Your task to perform on an android device: all mails in gmail Image 0: 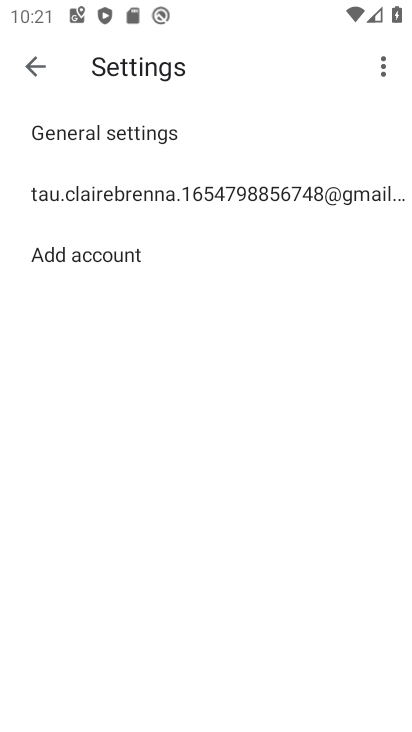
Step 0: click (39, 68)
Your task to perform on an android device: all mails in gmail Image 1: 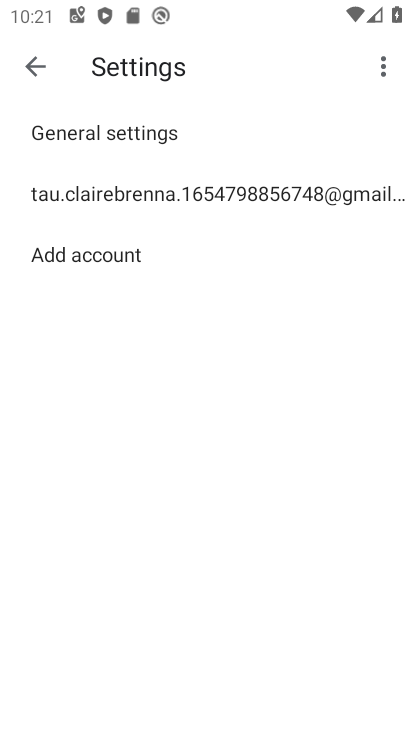
Step 1: click (31, 63)
Your task to perform on an android device: all mails in gmail Image 2: 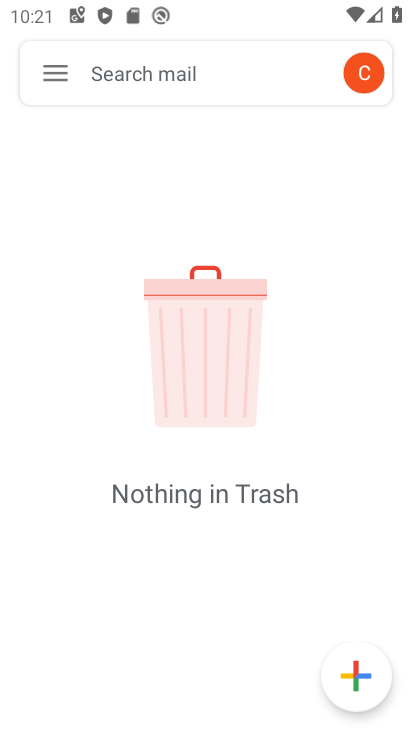
Step 2: click (57, 75)
Your task to perform on an android device: all mails in gmail Image 3: 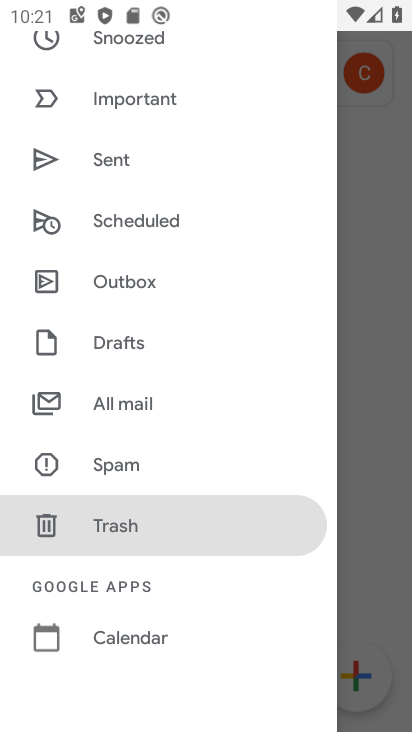
Step 3: click (131, 399)
Your task to perform on an android device: all mails in gmail Image 4: 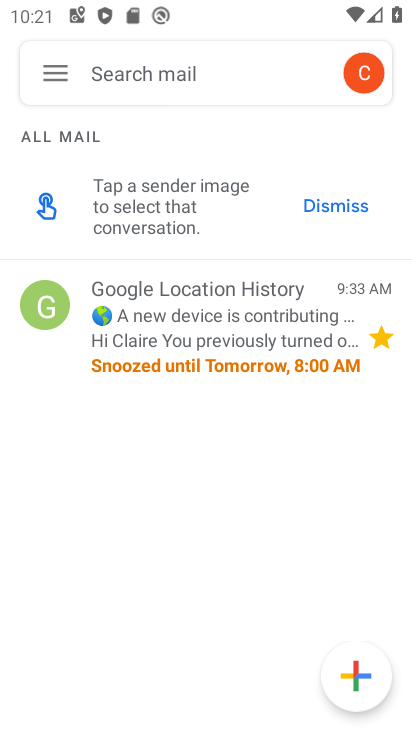
Step 4: task complete